Your task to perform on an android device: Open Chrome and go to the settings page Image 0: 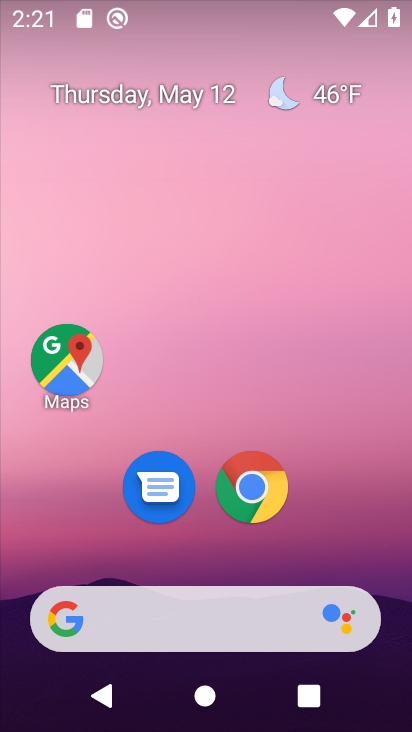
Step 0: click (263, 500)
Your task to perform on an android device: Open Chrome and go to the settings page Image 1: 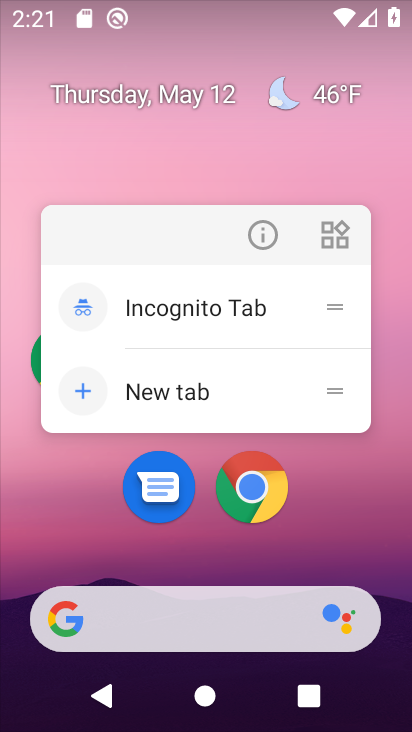
Step 1: click (254, 483)
Your task to perform on an android device: Open Chrome and go to the settings page Image 2: 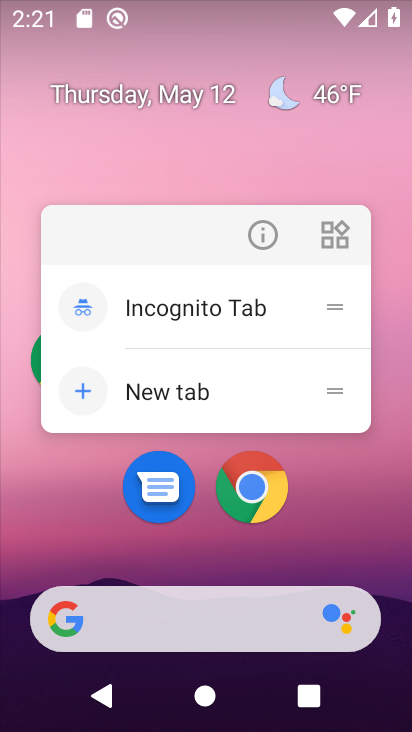
Step 2: click (243, 462)
Your task to perform on an android device: Open Chrome and go to the settings page Image 3: 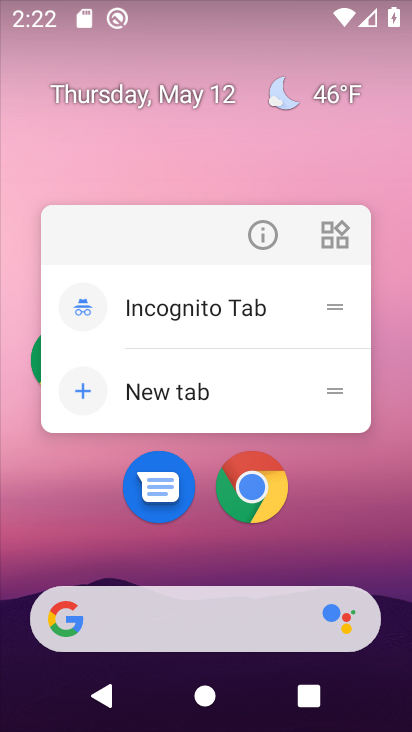
Step 3: click (238, 461)
Your task to perform on an android device: Open Chrome and go to the settings page Image 4: 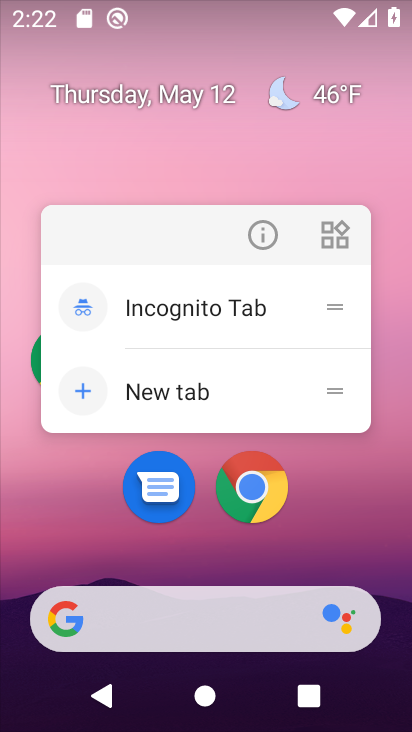
Step 4: click (242, 487)
Your task to perform on an android device: Open Chrome and go to the settings page Image 5: 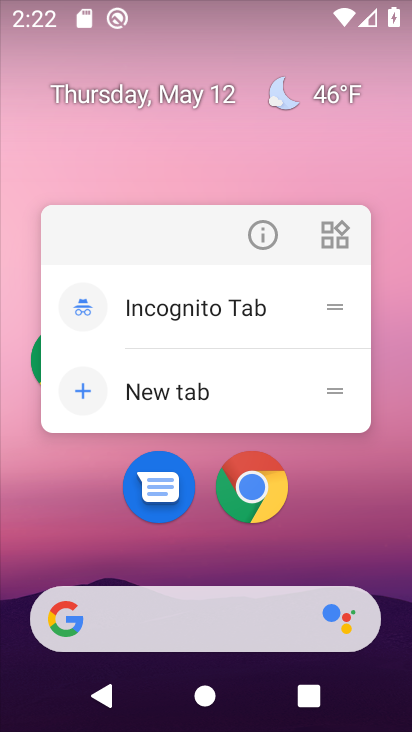
Step 5: click (237, 488)
Your task to perform on an android device: Open Chrome and go to the settings page Image 6: 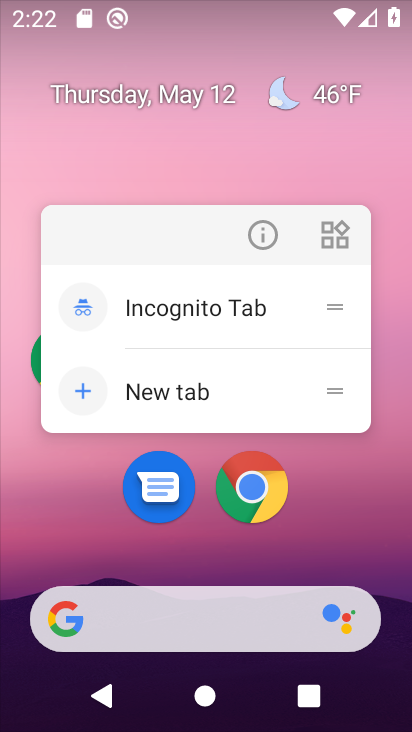
Step 6: click (241, 488)
Your task to perform on an android device: Open Chrome and go to the settings page Image 7: 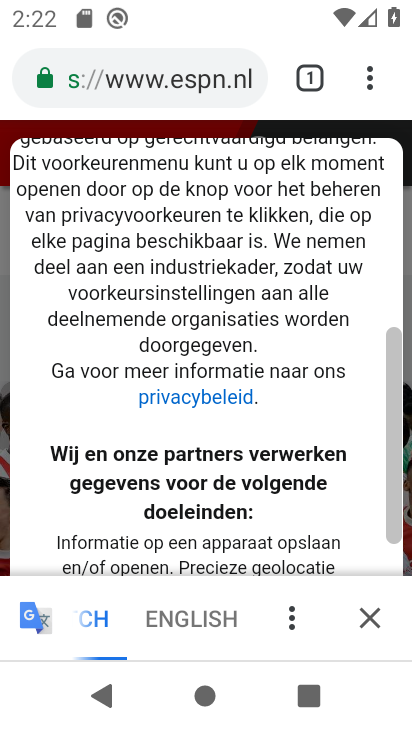
Step 7: click (356, 75)
Your task to perform on an android device: Open Chrome and go to the settings page Image 8: 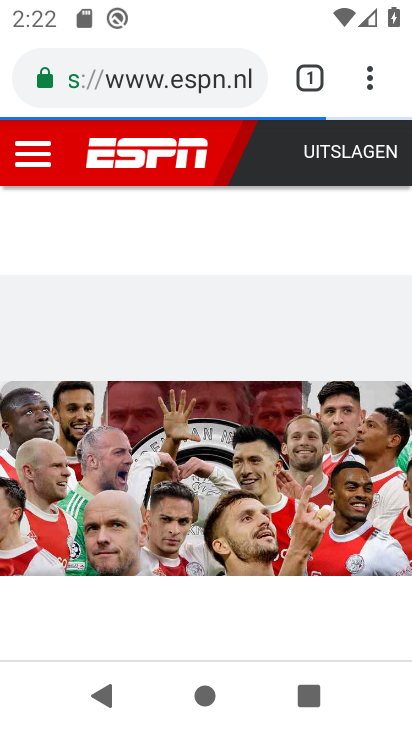
Step 8: click (361, 81)
Your task to perform on an android device: Open Chrome and go to the settings page Image 9: 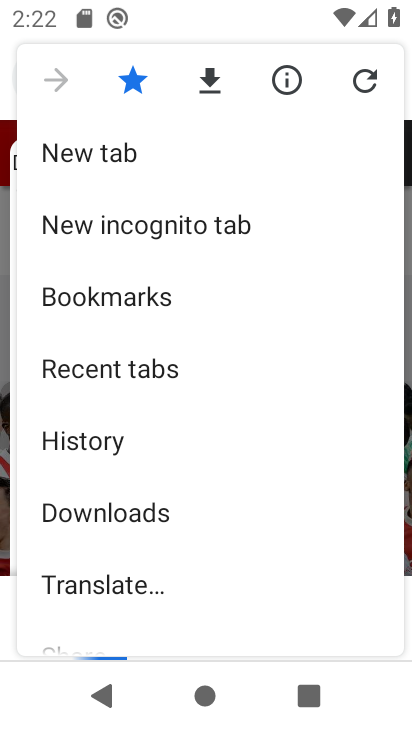
Step 9: drag from (196, 569) to (246, 80)
Your task to perform on an android device: Open Chrome and go to the settings page Image 10: 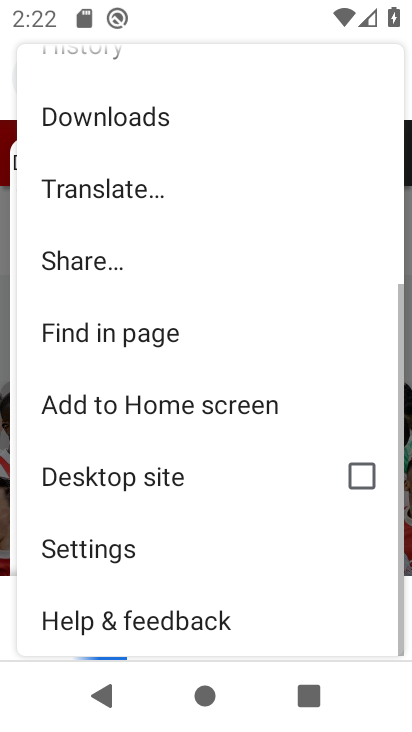
Step 10: click (133, 551)
Your task to perform on an android device: Open Chrome and go to the settings page Image 11: 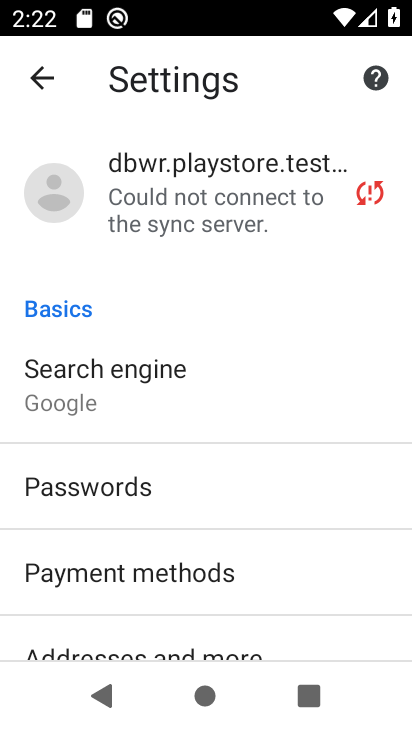
Step 11: task complete